Your task to perform on an android device: turn off picture-in-picture Image 0: 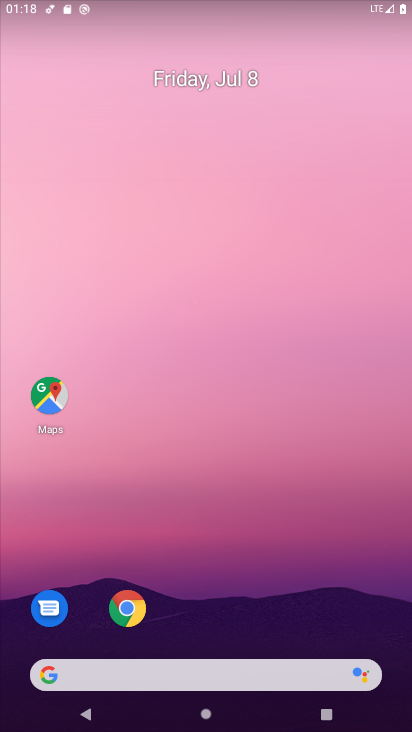
Step 0: drag from (232, 630) to (260, 263)
Your task to perform on an android device: turn off picture-in-picture Image 1: 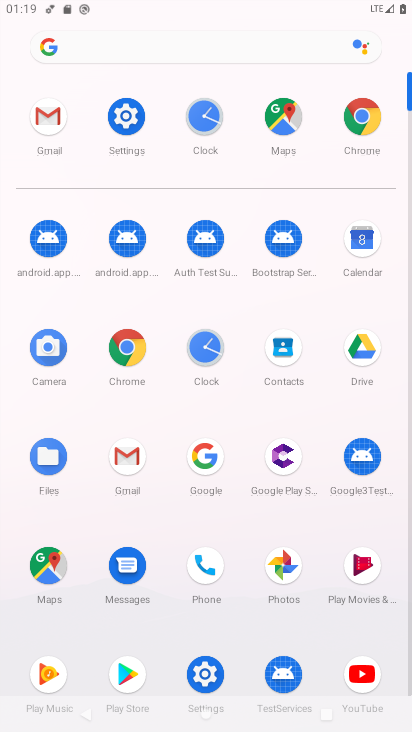
Step 1: click (136, 101)
Your task to perform on an android device: turn off picture-in-picture Image 2: 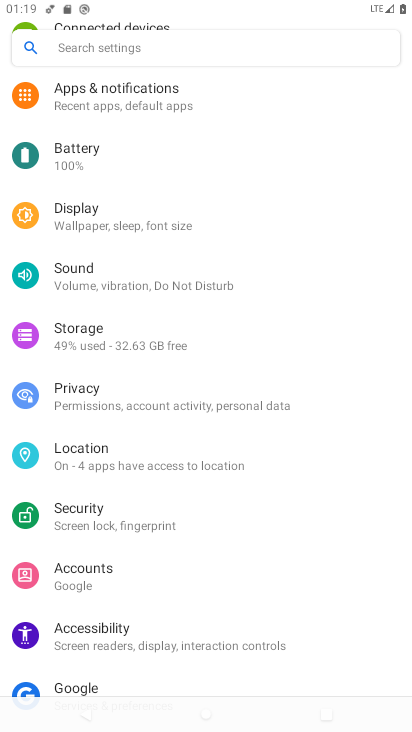
Step 2: click (120, 103)
Your task to perform on an android device: turn off picture-in-picture Image 3: 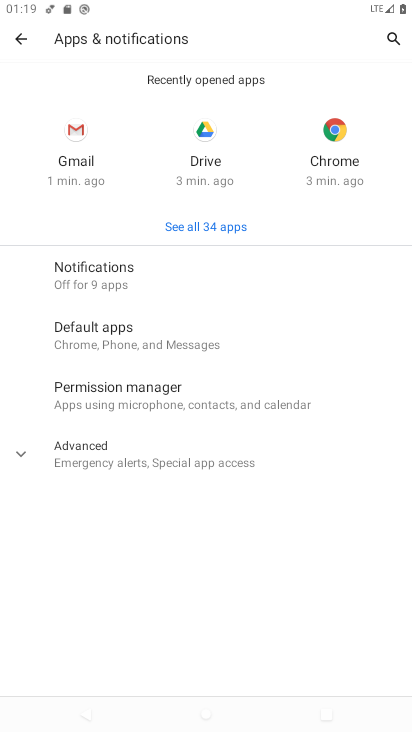
Step 3: click (149, 463)
Your task to perform on an android device: turn off picture-in-picture Image 4: 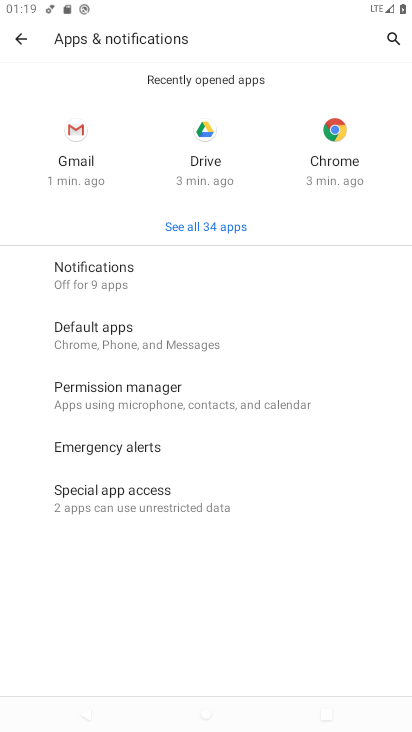
Step 4: click (124, 483)
Your task to perform on an android device: turn off picture-in-picture Image 5: 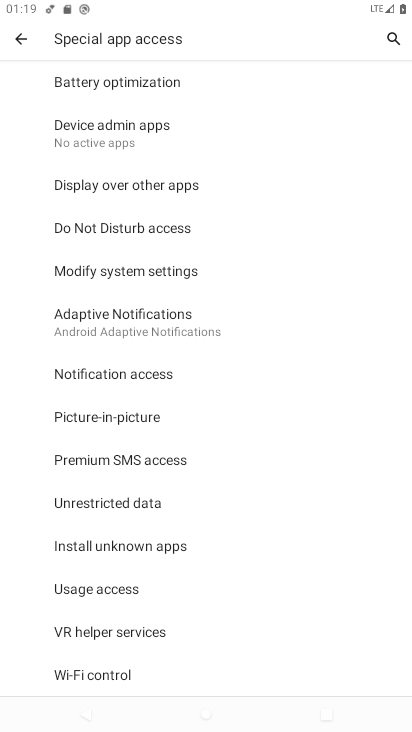
Step 5: click (117, 413)
Your task to perform on an android device: turn off picture-in-picture Image 6: 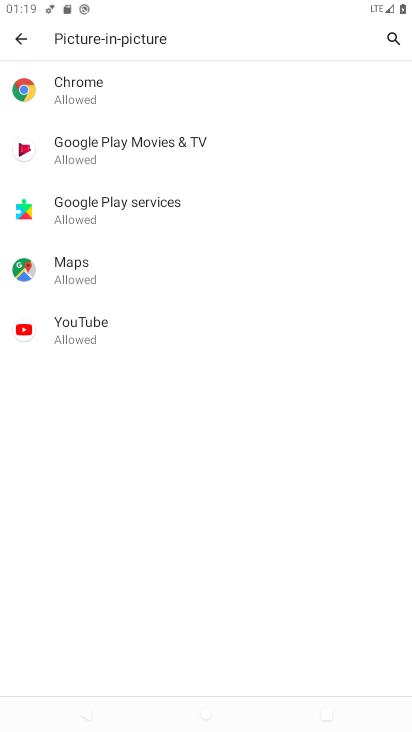
Step 6: click (110, 324)
Your task to perform on an android device: turn off picture-in-picture Image 7: 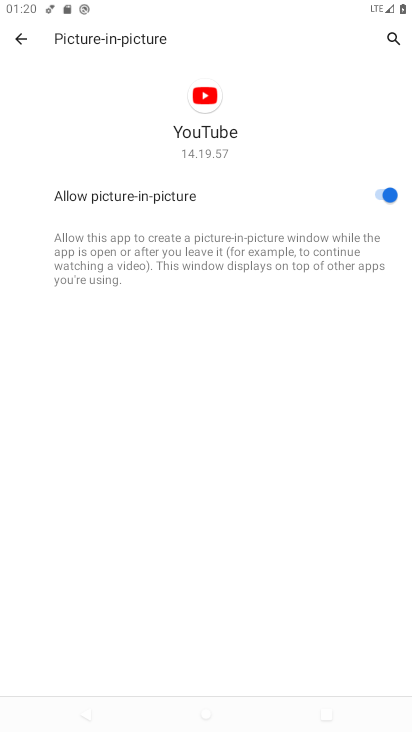
Step 7: click (391, 188)
Your task to perform on an android device: turn off picture-in-picture Image 8: 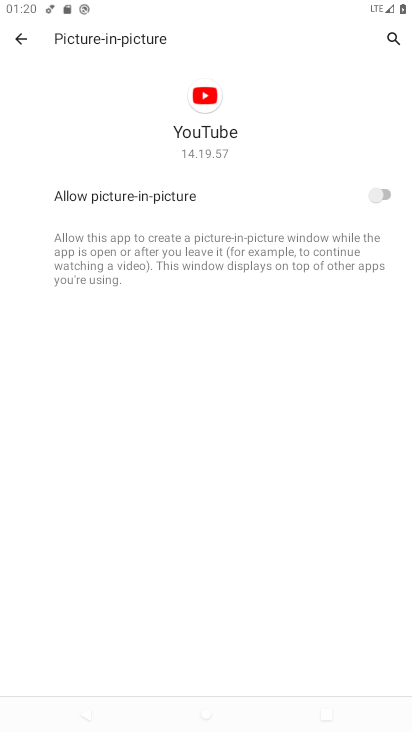
Step 8: click (386, 192)
Your task to perform on an android device: turn off picture-in-picture Image 9: 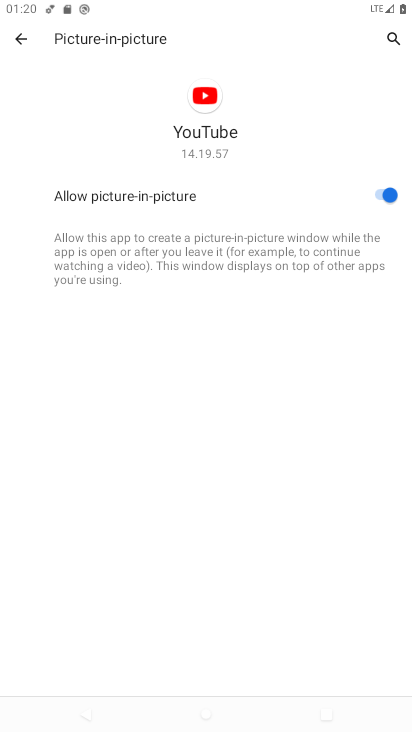
Step 9: task complete